Your task to perform on an android device: open sync settings in chrome Image 0: 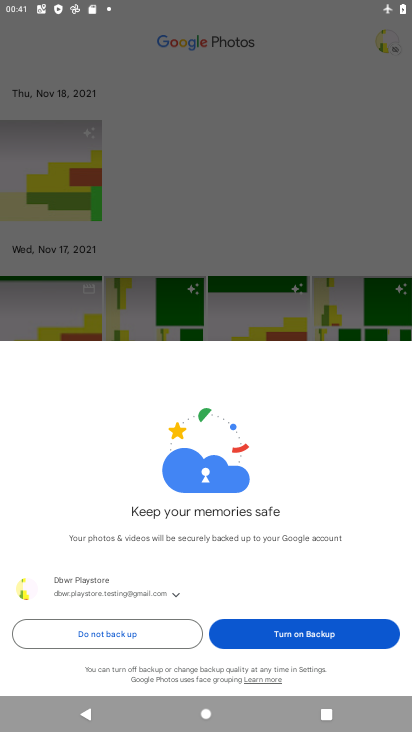
Step 0: press home button
Your task to perform on an android device: open sync settings in chrome Image 1: 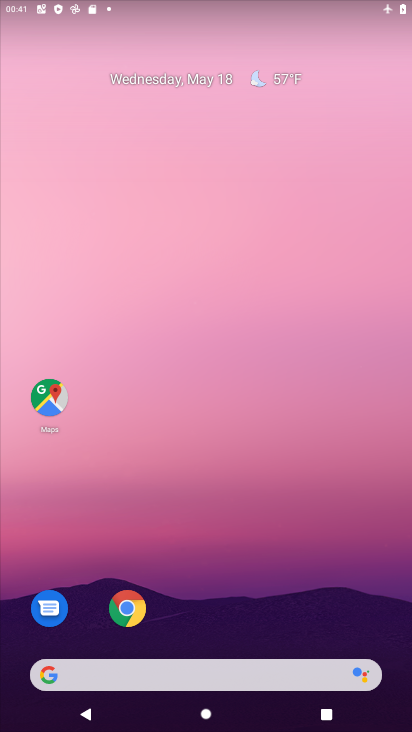
Step 1: click (126, 609)
Your task to perform on an android device: open sync settings in chrome Image 2: 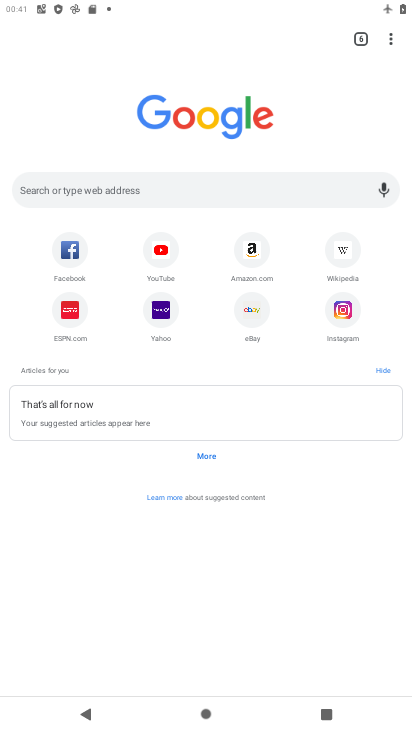
Step 2: click (393, 40)
Your task to perform on an android device: open sync settings in chrome Image 3: 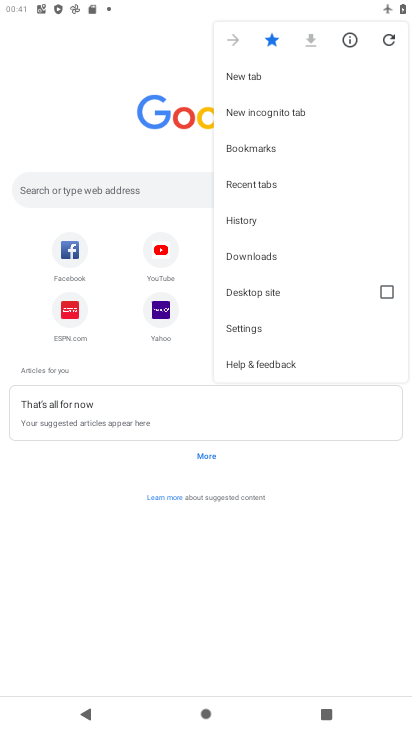
Step 3: click (252, 329)
Your task to perform on an android device: open sync settings in chrome Image 4: 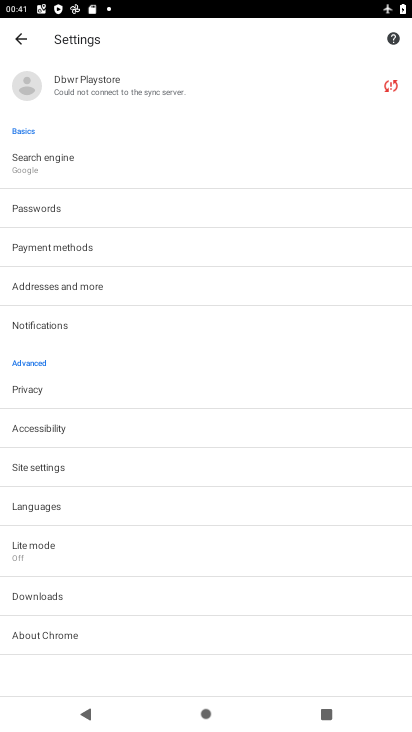
Step 4: click (94, 74)
Your task to perform on an android device: open sync settings in chrome Image 5: 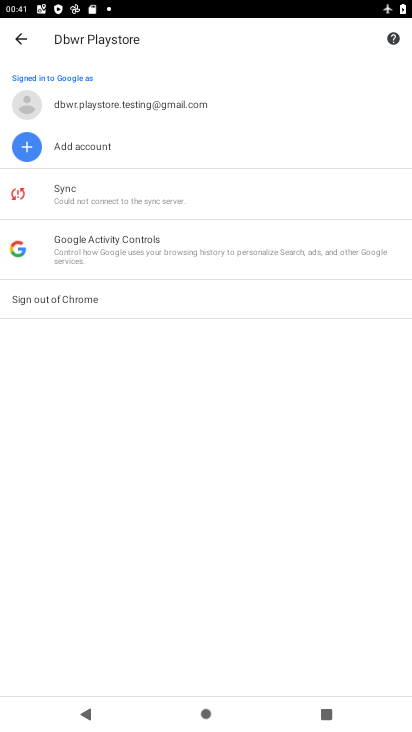
Step 5: click (70, 179)
Your task to perform on an android device: open sync settings in chrome Image 6: 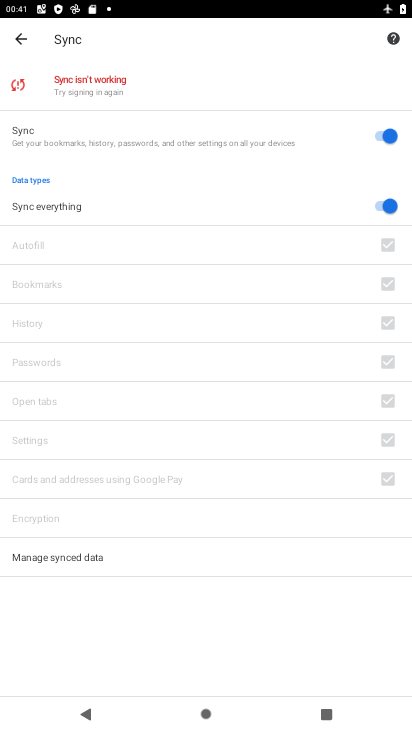
Step 6: task complete